Your task to perform on an android device: turn on notifications settings in the gmail app Image 0: 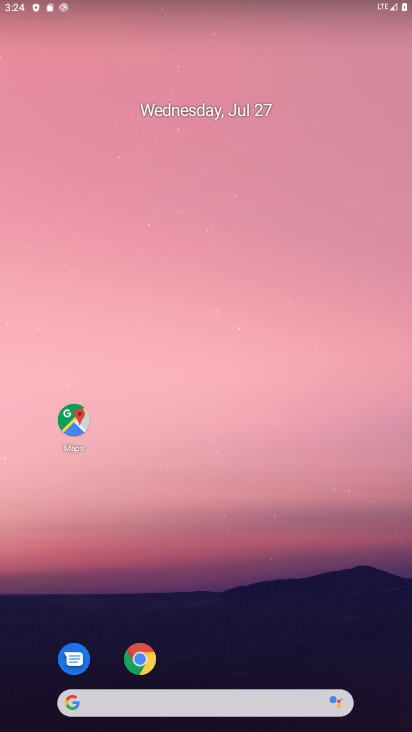
Step 0: drag from (275, 663) to (320, 98)
Your task to perform on an android device: turn on notifications settings in the gmail app Image 1: 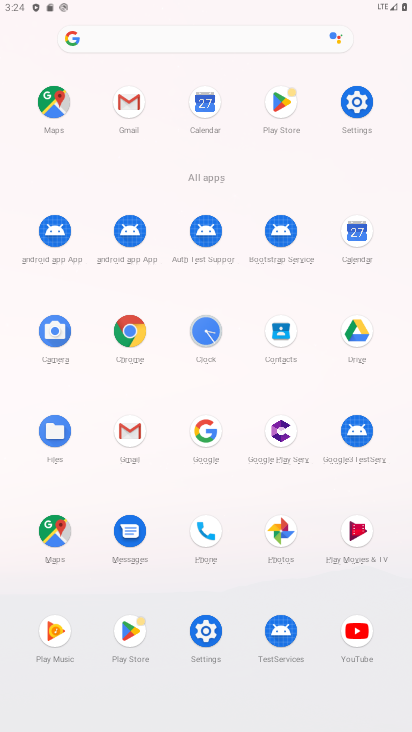
Step 1: click (128, 108)
Your task to perform on an android device: turn on notifications settings in the gmail app Image 2: 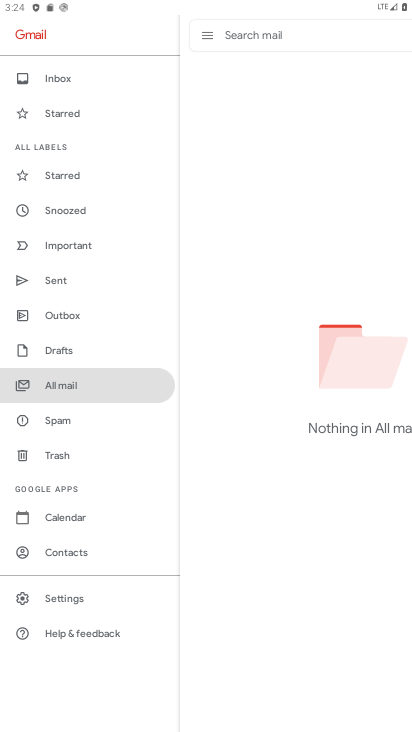
Step 2: click (39, 600)
Your task to perform on an android device: turn on notifications settings in the gmail app Image 3: 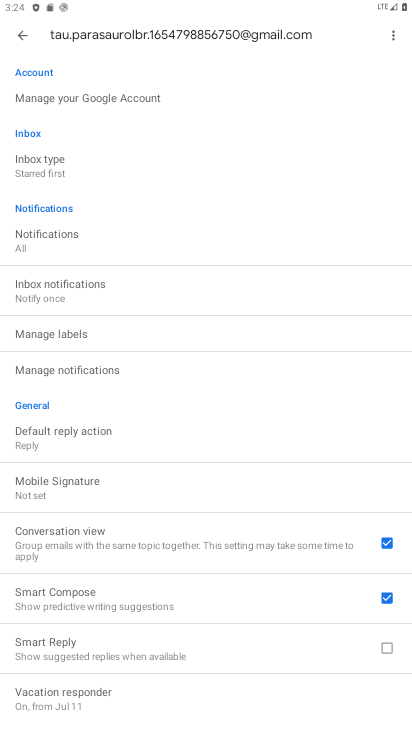
Step 3: click (25, 29)
Your task to perform on an android device: turn on notifications settings in the gmail app Image 4: 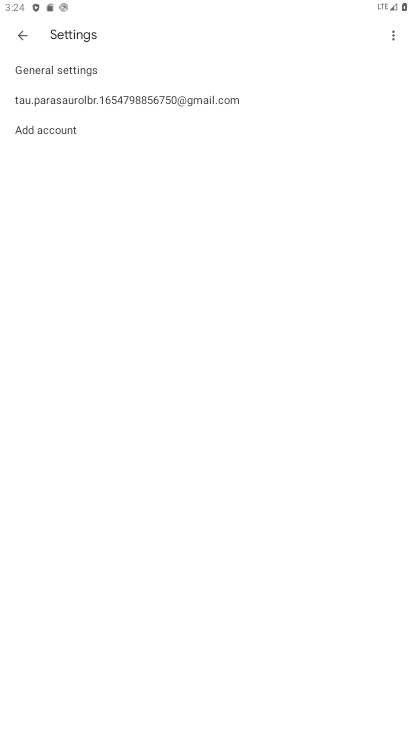
Step 4: click (52, 60)
Your task to perform on an android device: turn on notifications settings in the gmail app Image 5: 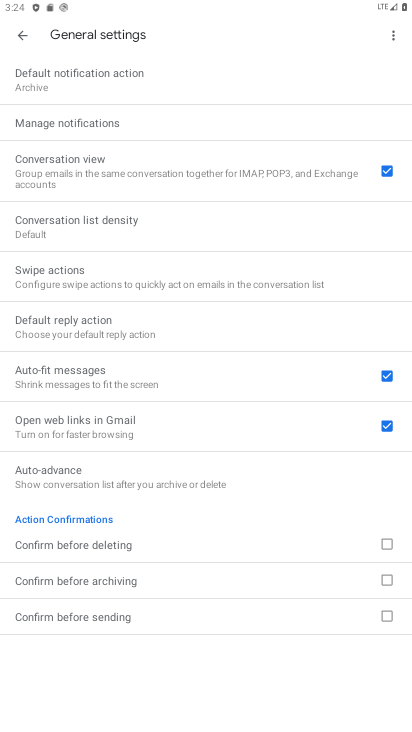
Step 5: click (58, 115)
Your task to perform on an android device: turn on notifications settings in the gmail app Image 6: 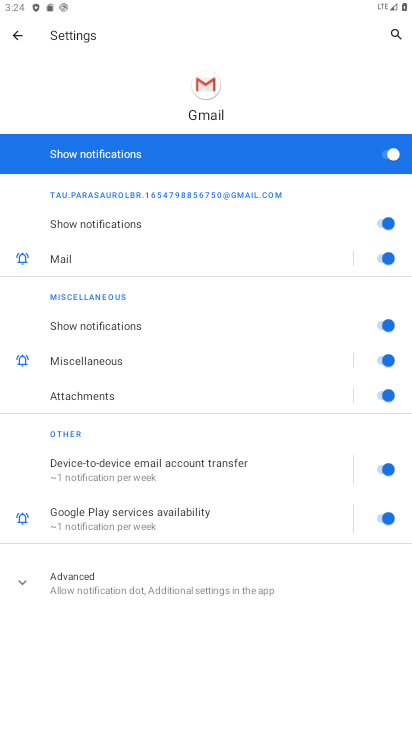
Step 6: task complete